Your task to perform on an android device: Go to Wikipedia Image 0: 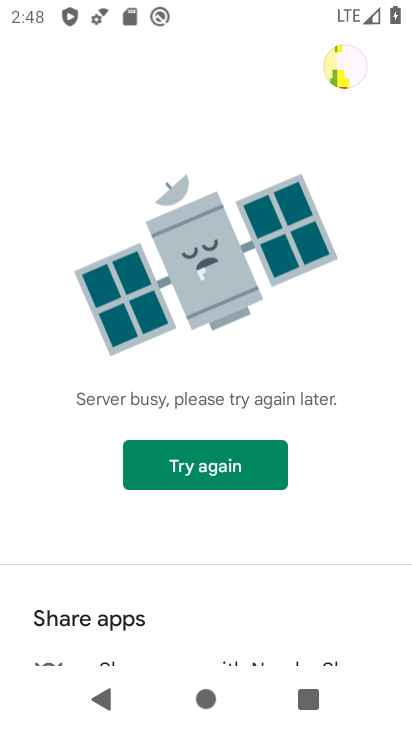
Step 0: press back button
Your task to perform on an android device: Go to Wikipedia Image 1: 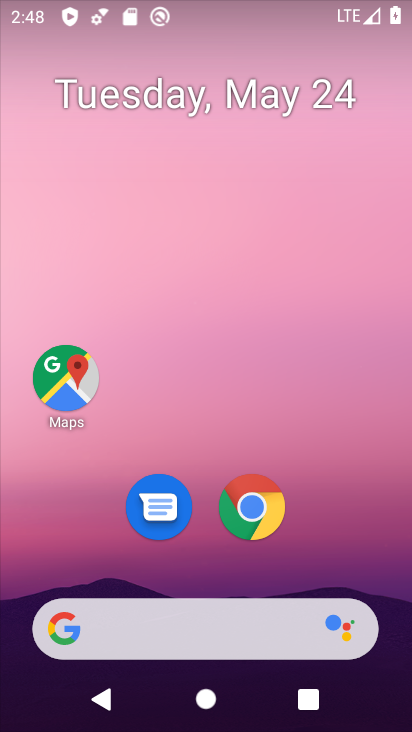
Step 1: click (251, 517)
Your task to perform on an android device: Go to Wikipedia Image 2: 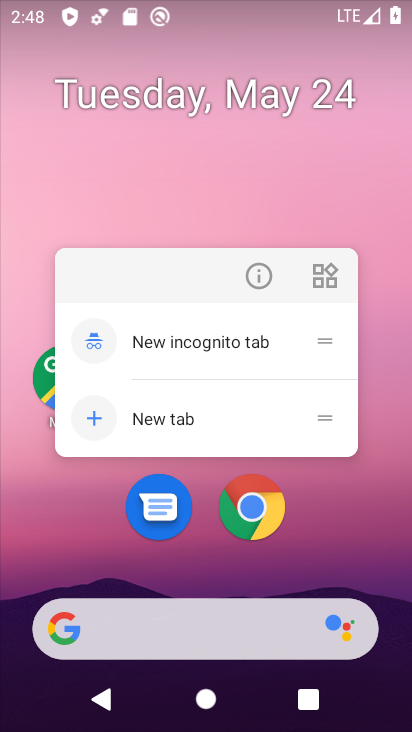
Step 2: click (252, 513)
Your task to perform on an android device: Go to Wikipedia Image 3: 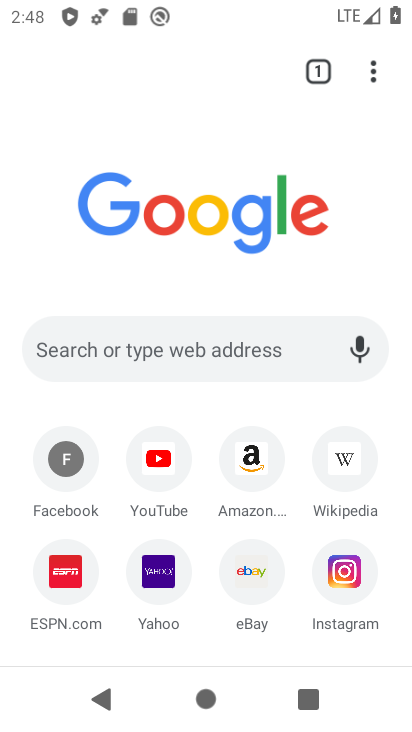
Step 3: click (332, 464)
Your task to perform on an android device: Go to Wikipedia Image 4: 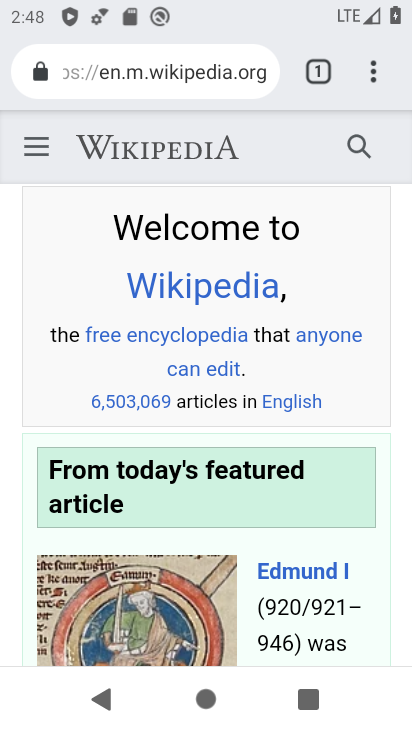
Step 4: task complete